Your task to perform on an android device: Go to internet settings Image 0: 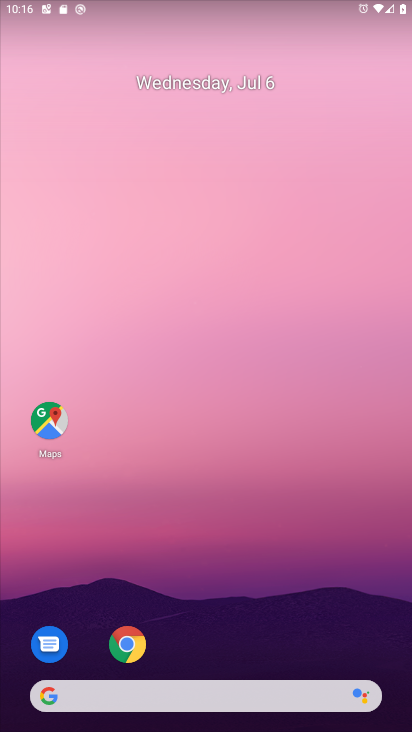
Step 0: drag from (216, 592) to (309, 119)
Your task to perform on an android device: Go to internet settings Image 1: 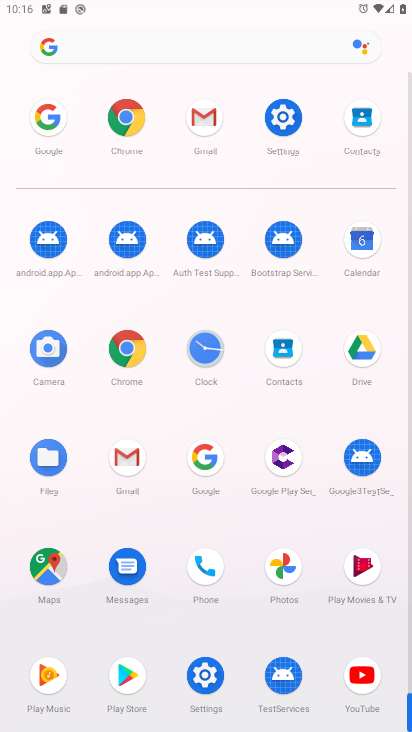
Step 1: click (279, 137)
Your task to perform on an android device: Go to internet settings Image 2: 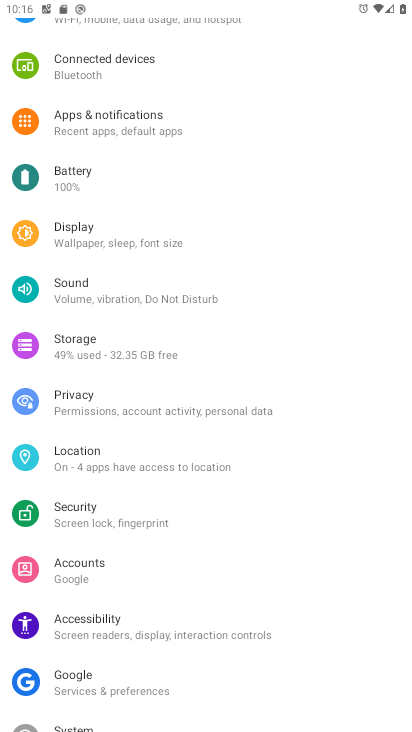
Step 2: drag from (242, 248) to (197, 509)
Your task to perform on an android device: Go to internet settings Image 3: 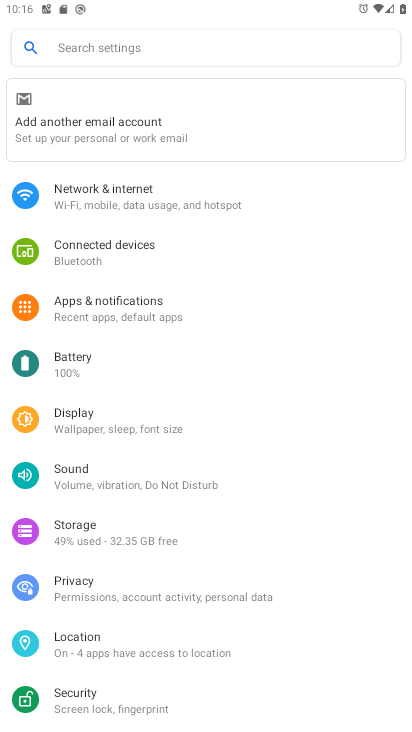
Step 3: click (232, 212)
Your task to perform on an android device: Go to internet settings Image 4: 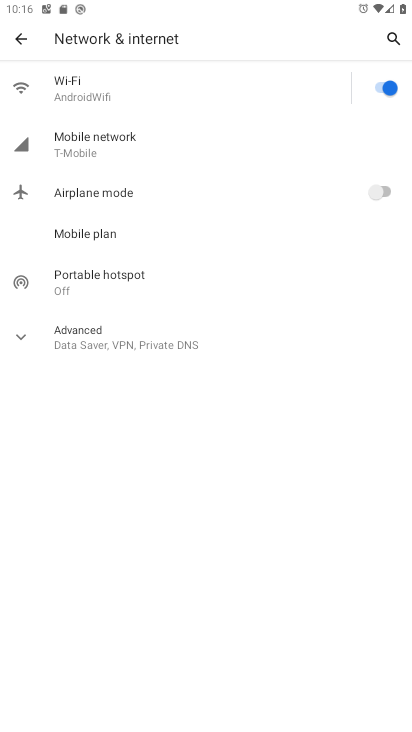
Step 4: click (188, 156)
Your task to perform on an android device: Go to internet settings Image 5: 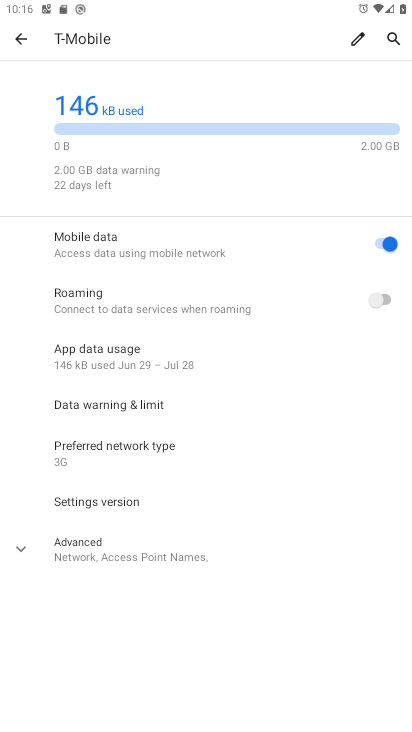
Step 5: task complete